Your task to perform on an android device: Is it going to rain today? Image 0: 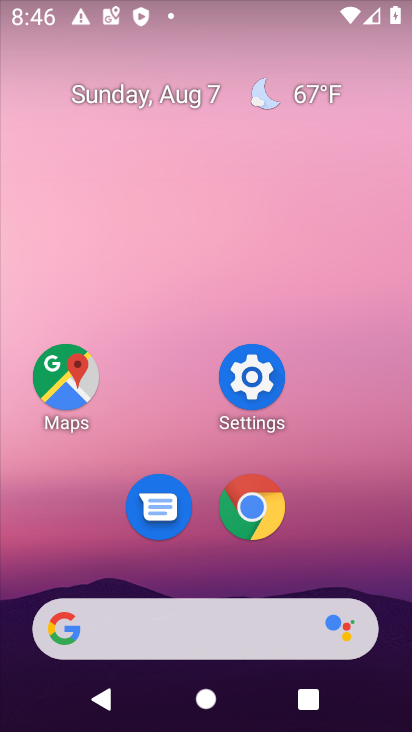
Step 0: press home button
Your task to perform on an android device: Is it going to rain today? Image 1: 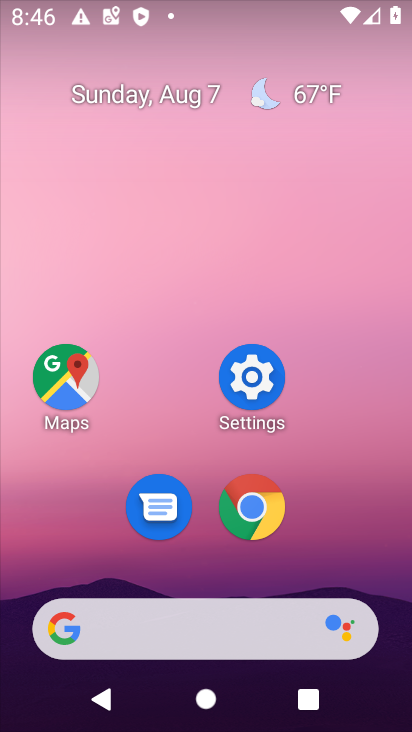
Step 1: click (157, 626)
Your task to perform on an android device: Is it going to rain today? Image 2: 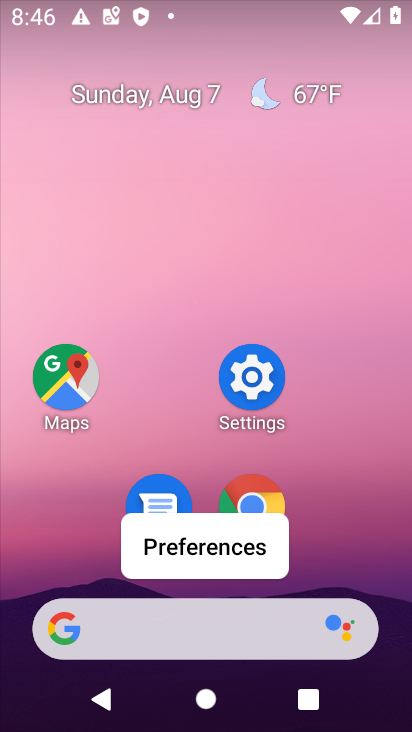
Step 2: click (152, 633)
Your task to perform on an android device: Is it going to rain today? Image 3: 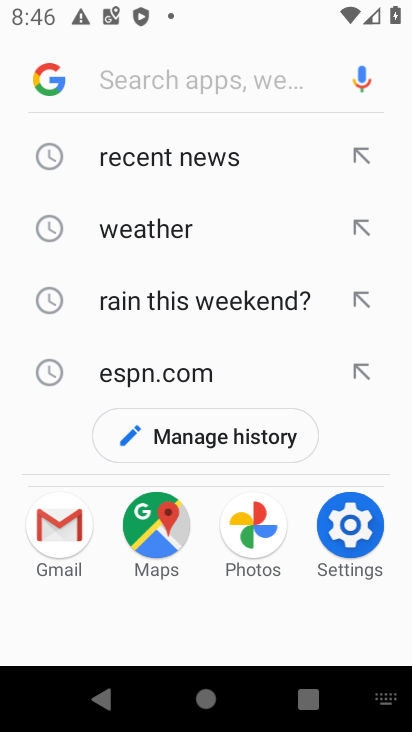
Step 3: click (173, 230)
Your task to perform on an android device: Is it going to rain today? Image 4: 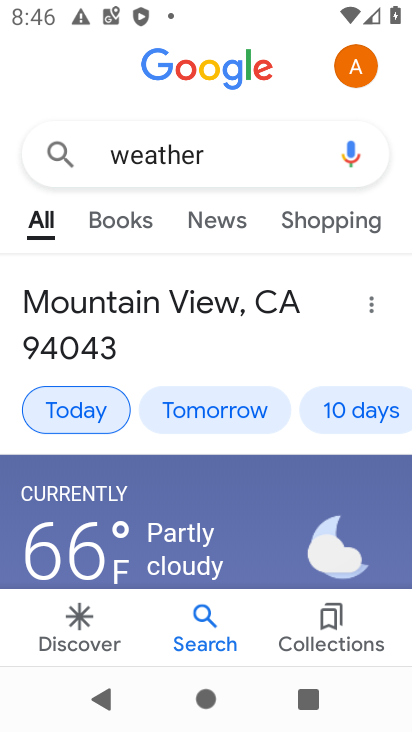
Step 4: task complete